Your task to perform on an android device: Set the phone to "Do not disturb". Image 0: 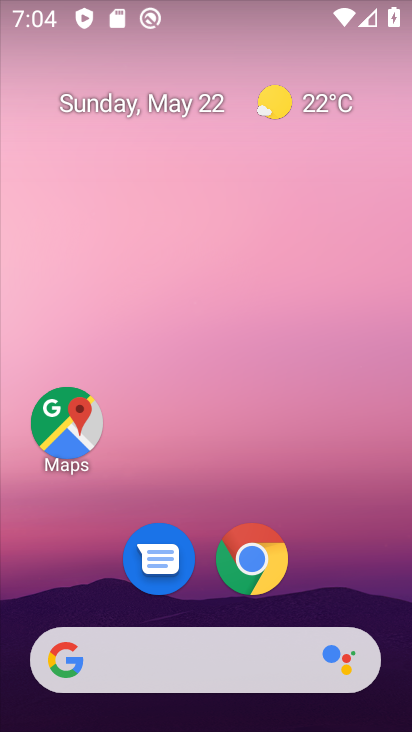
Step 0: drag from (289, 681) to (147, 159)
Your task to perform on an android device: Set the phone to "Do not disturb". Image 1: 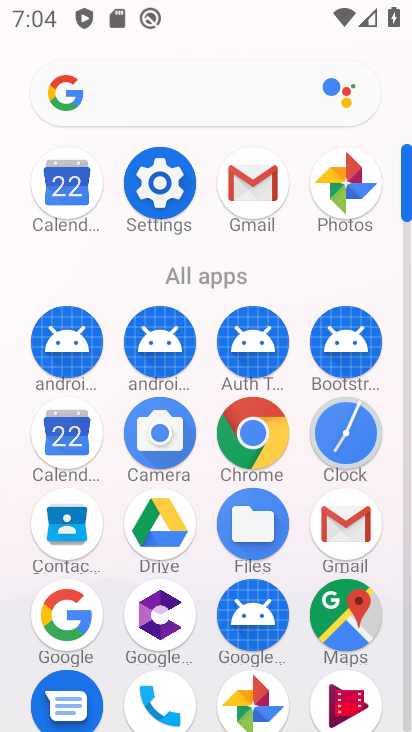
Step 1: click (143, 193)
Your task to perform on an android device: Set the phone to "Do not disturb". Image 2: 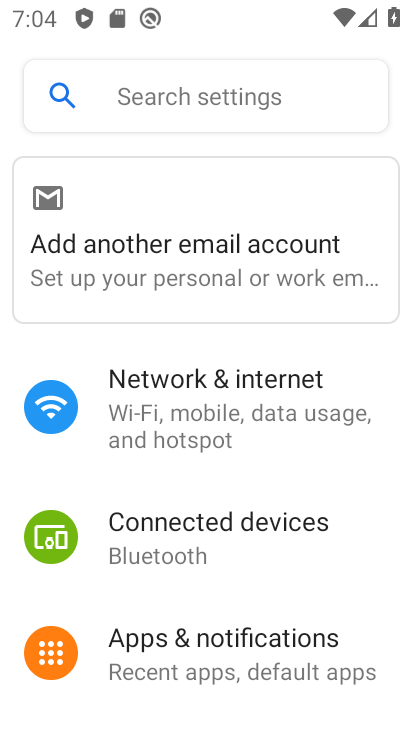
Step 2: click (162, 102)
Your task to perform on an android device: Set the phone to "Do not disturb". Image 3: 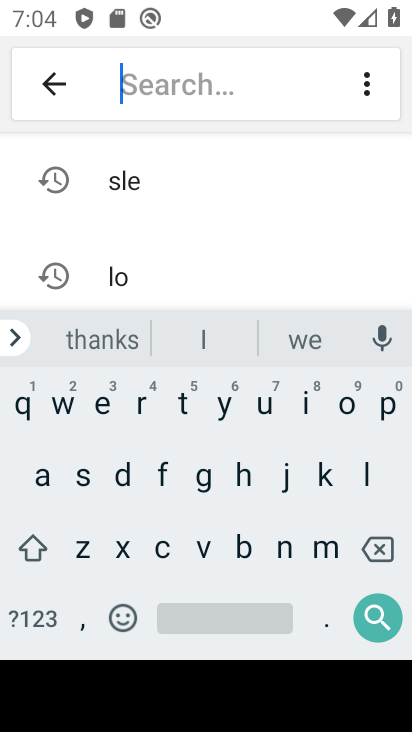
Step 3: click (115, 480)
Your task to perform on an android device: Set the phone to "Do not disturb". Image 4: 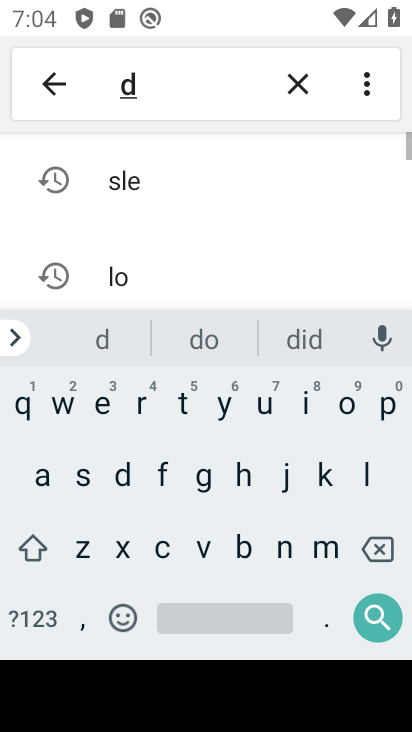
Step 4: click (287, 549)
Your task to perform on an android device: Set the phone to "Do not disturb". Image 5: 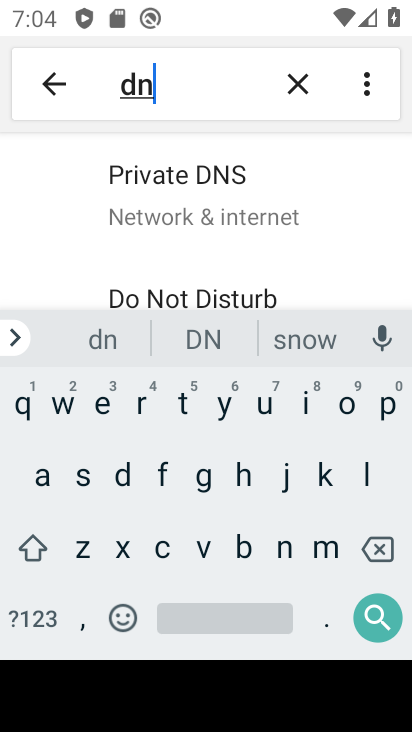
Step 5: click (185, 301)
Your task to perform on an android device: Set the phone to "Do not disturb". Image 6: 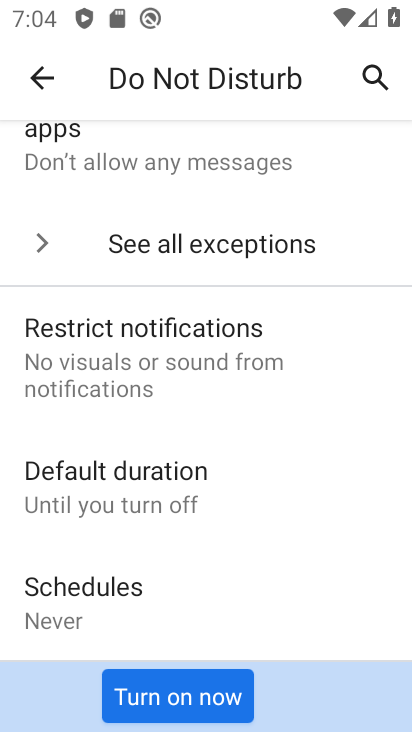
Step 6: click (205, 695)
Your task to perform on an android device: Set the phone to "Do not disturb". Image 7: 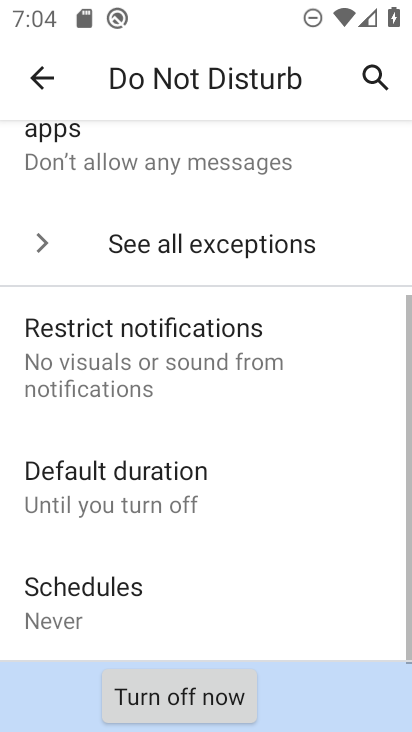
Step 7: task complete